Your task to perform on an android device: delete location history Image 0: 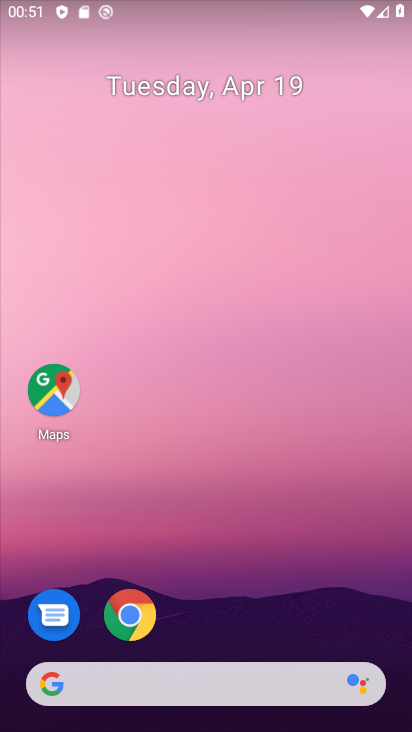
Step 0: drag from (292, 463) to (294, 119)
Your task to perform on an android device: delete location history Image 1: 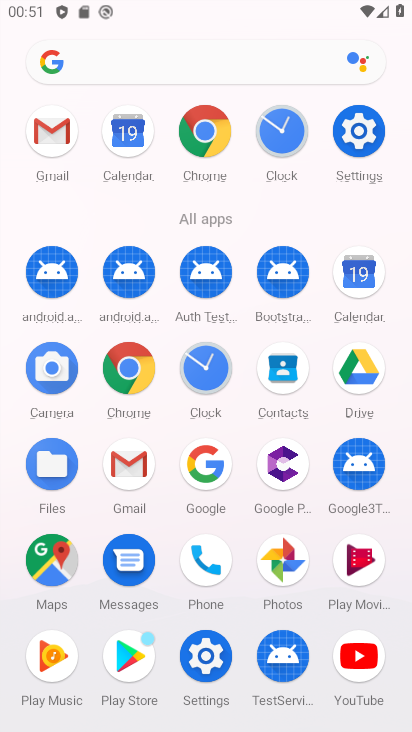
Step 1: click (371, 133)
Your task to perform on an android device: delete location history Image 2: 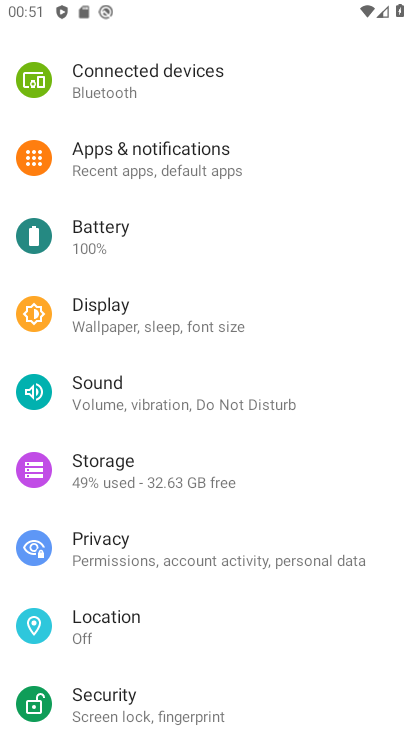
Step 2: drag from (195, 599) to (214, 271)
Your task to perform on an android device: delete location history Image 3: 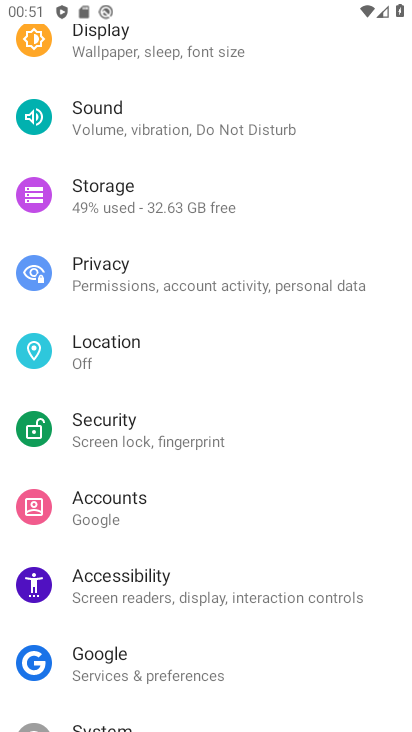
Step 3: click (157, 366)
Your task to perform on an android device: delete location history Image 4: 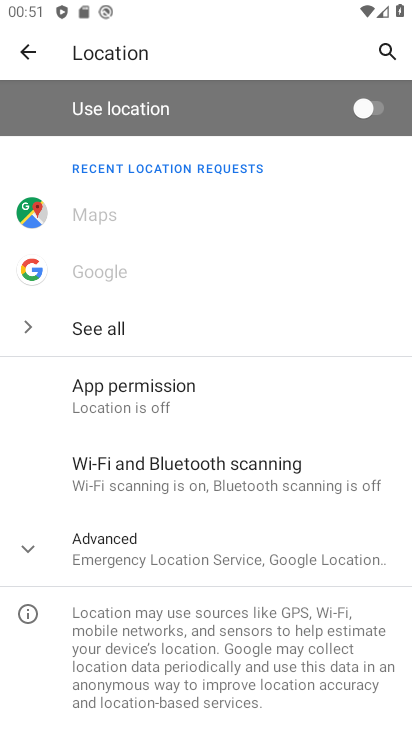
Step 4: click (33, 550)
Your task to perform on an android device: delete location history Image 5: 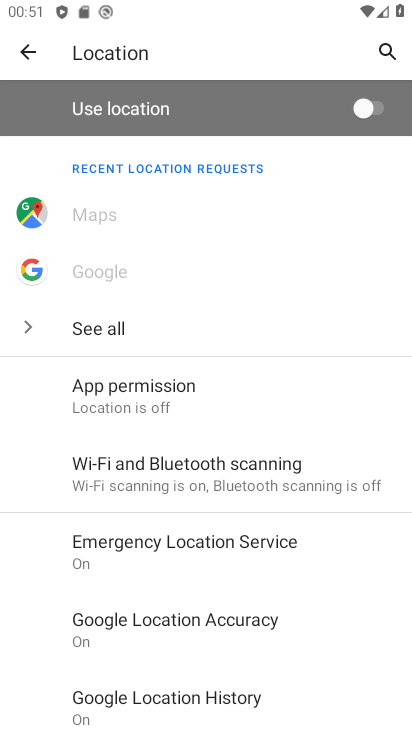
Step 5: drag from (192, 711) to (198, 467)
Your task to perform on an android device: delete location history Image 6: 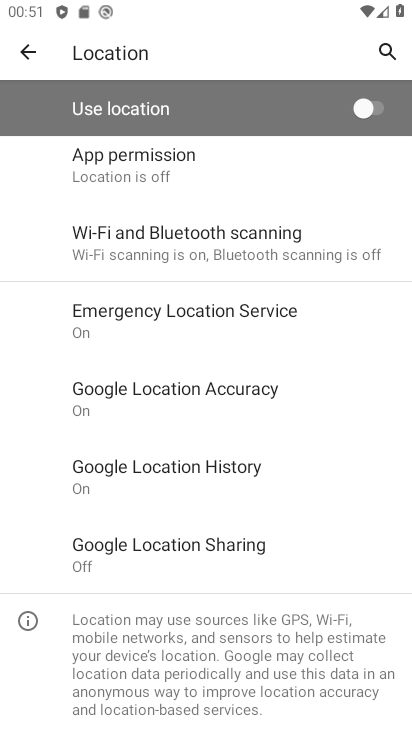
Step 6: click (192, 484)
Your task to perform on an android device: delete location history Image 7: 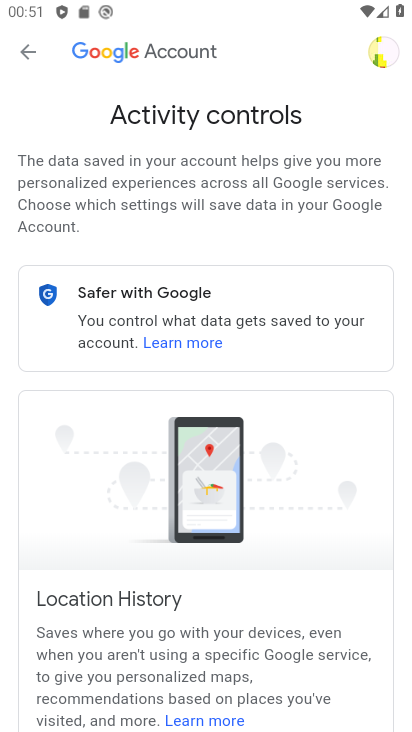
Step 7: drag from (263, 587) to (329, 215)
Your task to perform on an android device: delete location history Image 8: 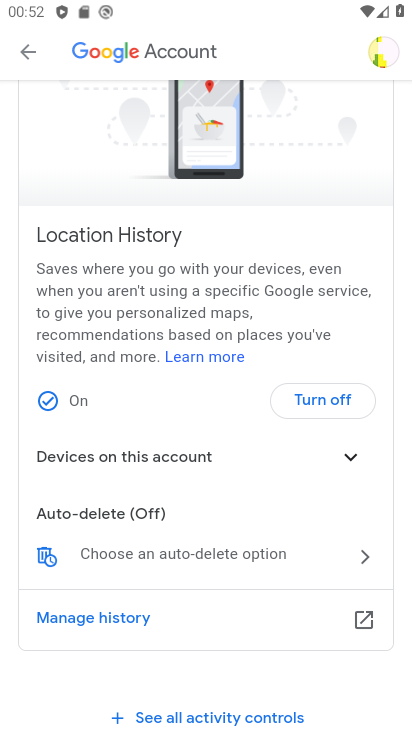
Step 8: click (230, 550)
Your task to perform on an android device: delete location history Image 9: 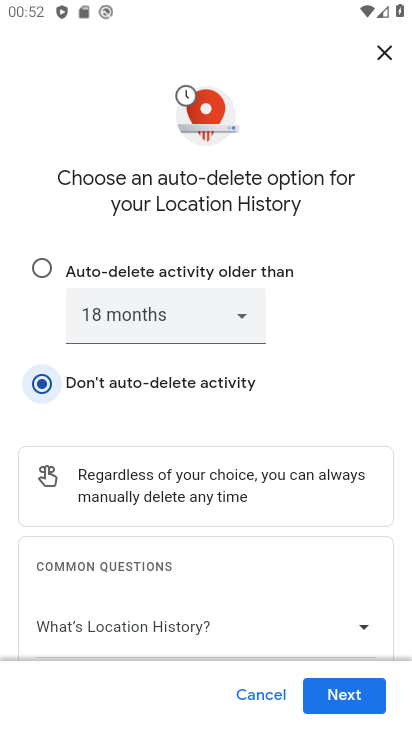
Step 9: click (370, 701)
Your task to perform on an android device: delete location history Image 10: 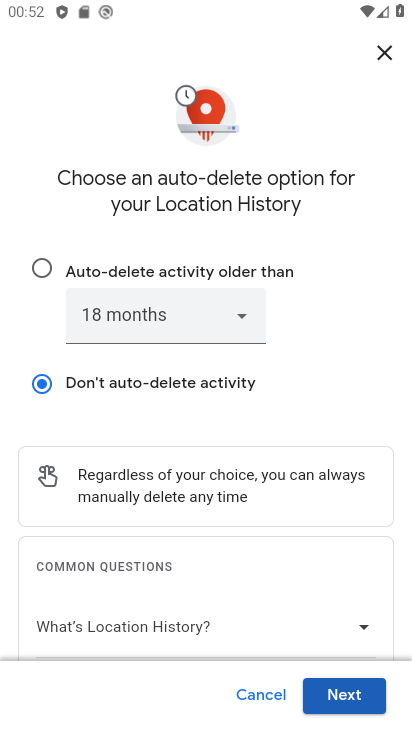
Step 10: click (369, 701)
Your task to perform on an android device: delete location history Image 11: 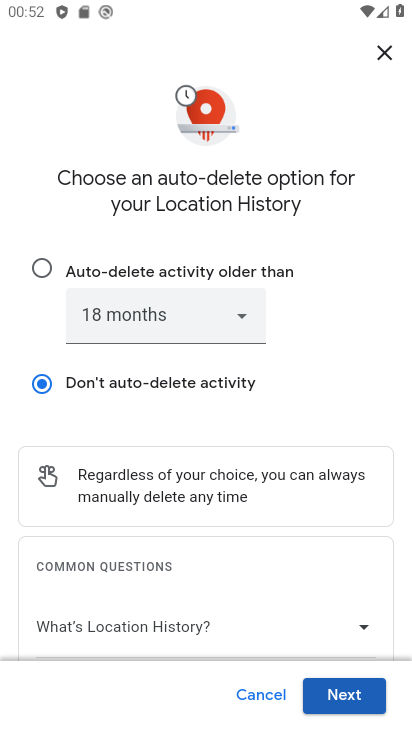
Step 11: click (369, 697)
Your task to perform on an android device: delete location history Image 12: 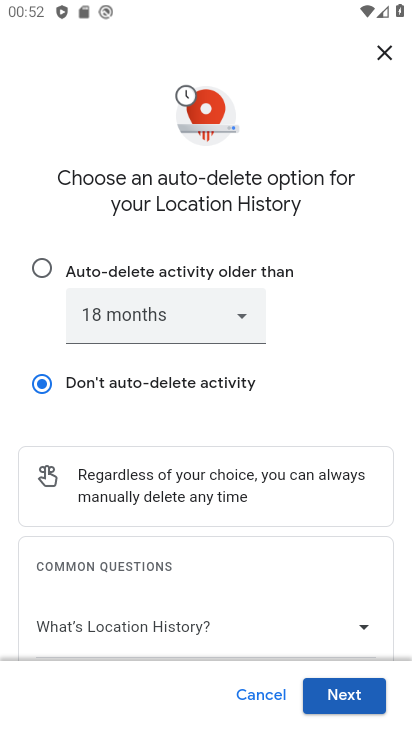
Step 12: click (369, 695)
Your task to perform on an android device: delete location history Image 13: 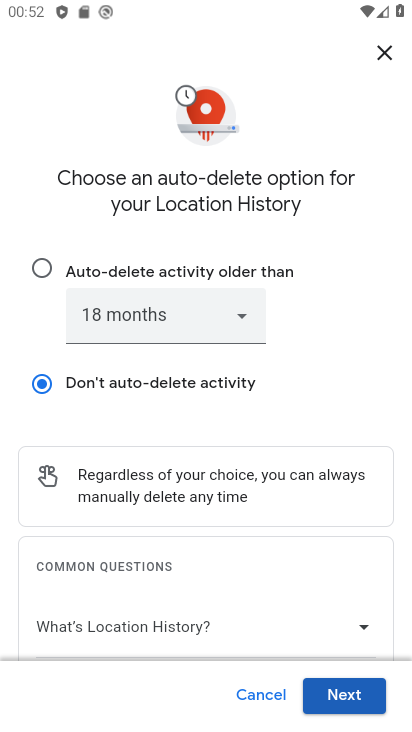
Step 13: click (354, 702)
Your task to perform on an android device: delete location history Image 14: 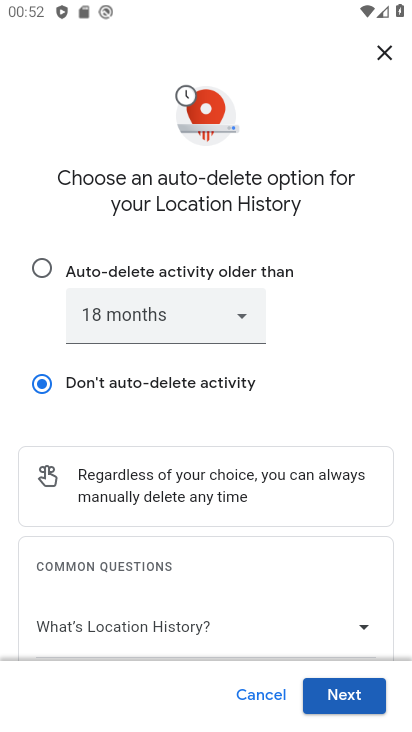
Step 14: click (354, 702)
Your task to perform on an android device: delete location history Image 15: 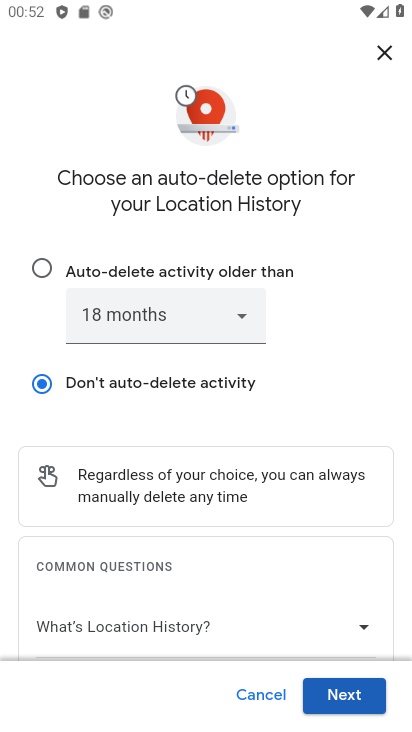
Step 15: click (354, 702)
Your task to perform on an android device: delete location history Image 16: 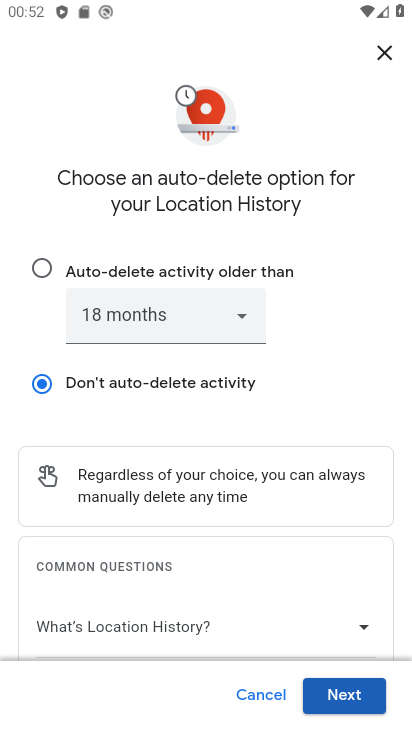
Step 16: click (354, 702)
Your task to perform on an android device: delete location history Image 17: 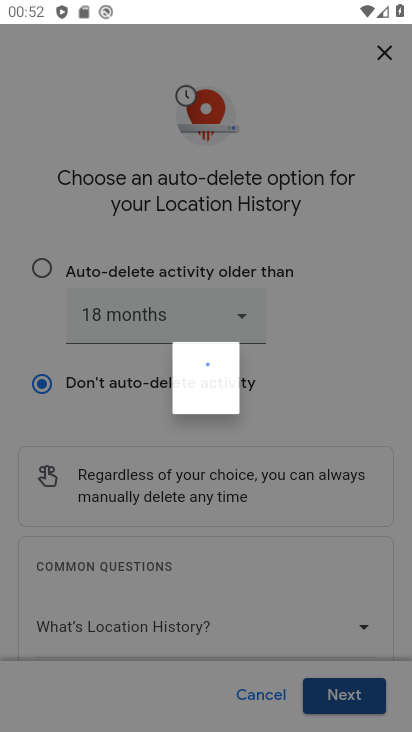
Step 17: task complete